Your task to perform on an android device: Show me the alarms in the clock app Image 0: 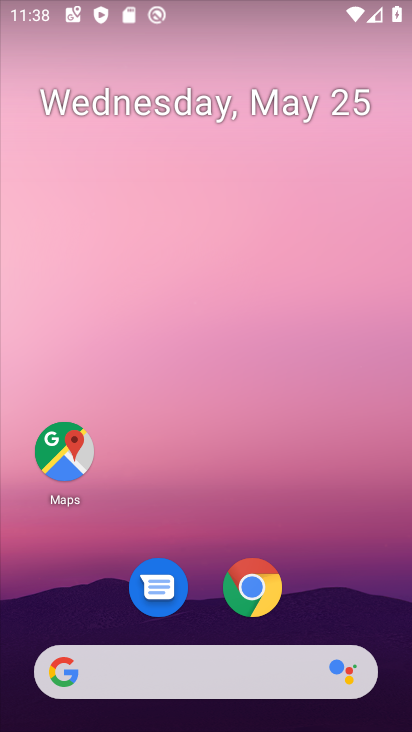
Step 0: drag from (308, 684) to (193, 110)
Your task to perform on an android device: Show me the alarms in the clock app Image 1: 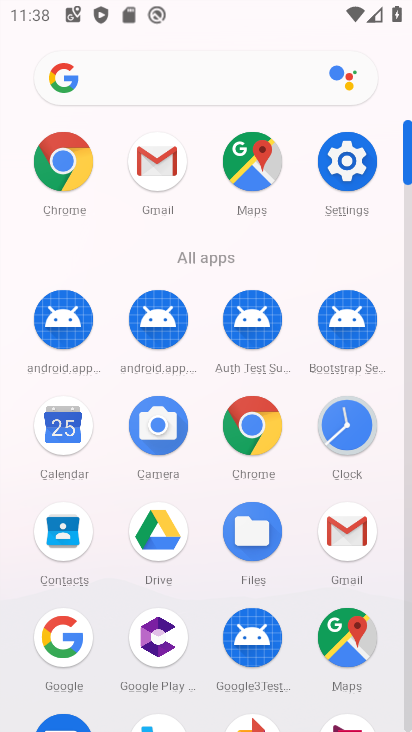
Step 1: click (337, 434)
Your task to perform on an android device: Show me the alarms in the clock app Image 2: 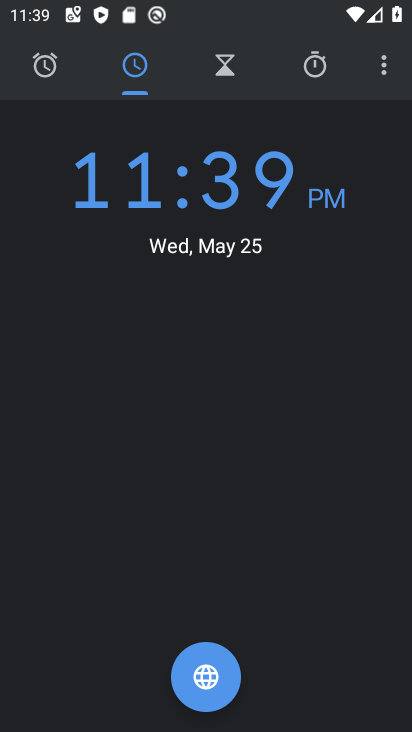
Step 2: click (378, 66)
Your task to perform on an android device: Show me the alarms in the clock app Image 3: 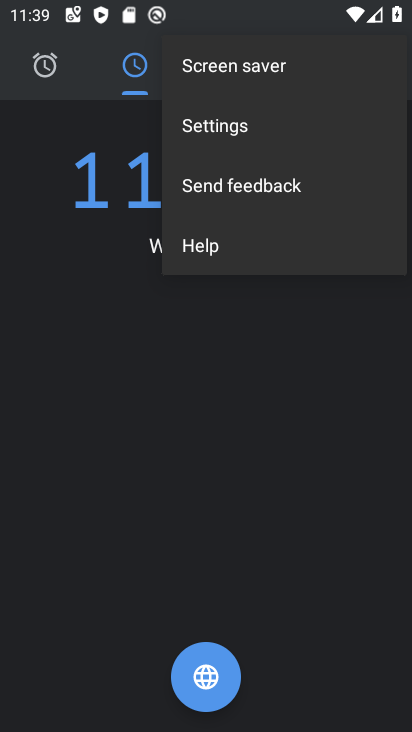
Step 3: click (54, 57)
Your task to perform on an android device: Show me the alarms in the clock app Image 4: 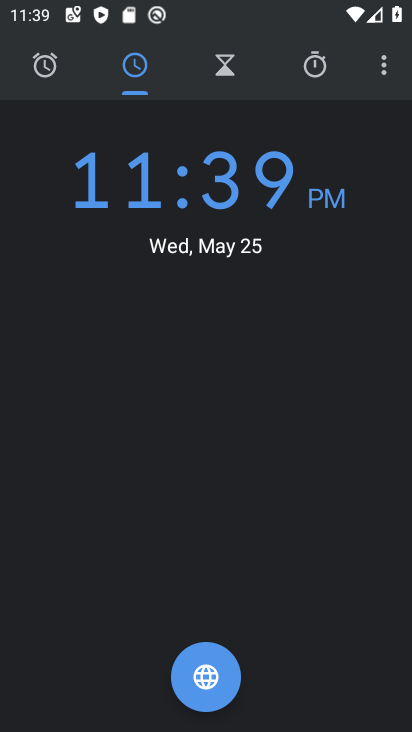
Step 4: click (54, 62)
Your task to perform on an android device: Show me the alarms in the clock app Image 5: 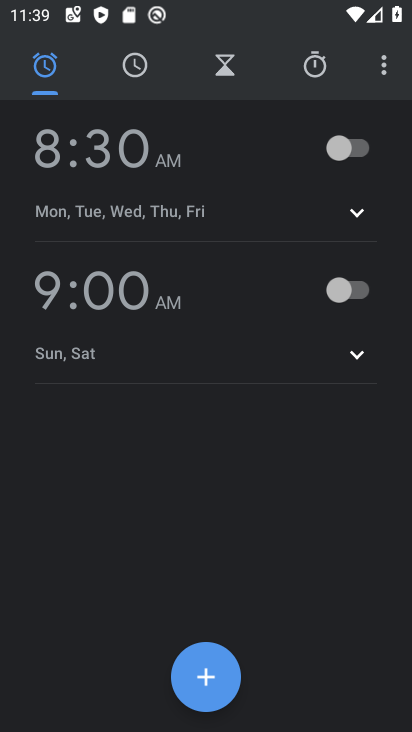
Step 5: task complete